Your task to perform on an android device: toggle improve location accuracy Image 0: 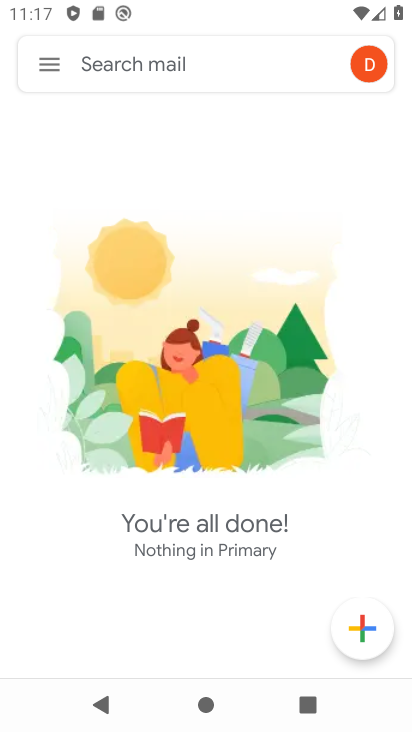
Step 0: press home button
Your task to perform on an android device: toggle improve location accuracy Image 1: 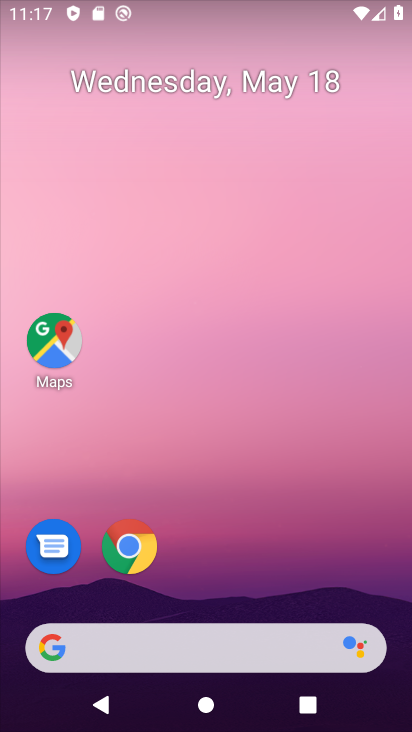
Step 1: drag from (386, 504) to (376, 300)
Your task to perform on an android device: toggle improve location accuracy Image 2: 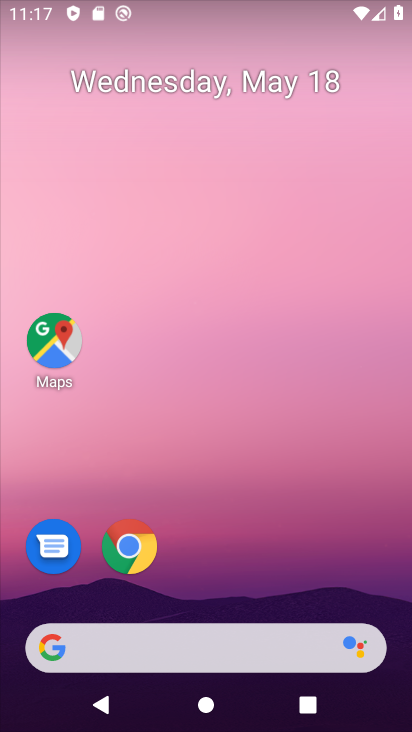
Step 2: drag from (397, 700) to (408, 231)
Your task to perform on an android device: toggle improve location accuracy Image 3: 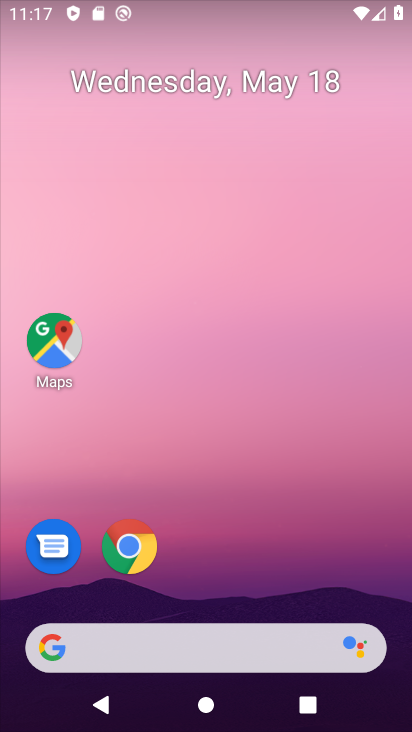
Step 3: drag from (398, 638) to (408, 183)
Your task to perform on an android device: toggle improve location accuracy Image 4: 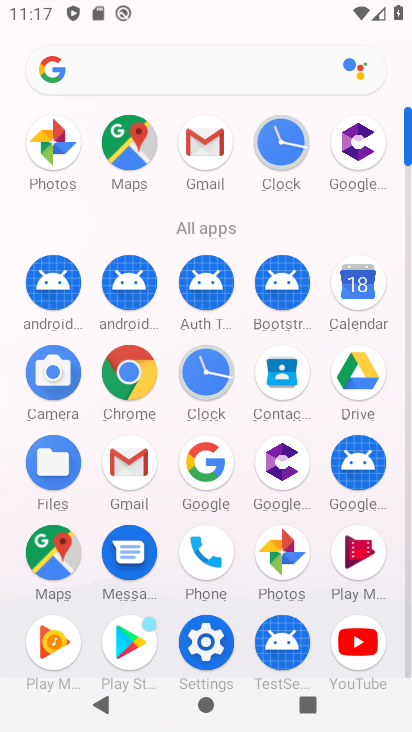
Step 4: click (208, 643)
Your task to perform on an android device: toggle improve location accuracy Image 5: 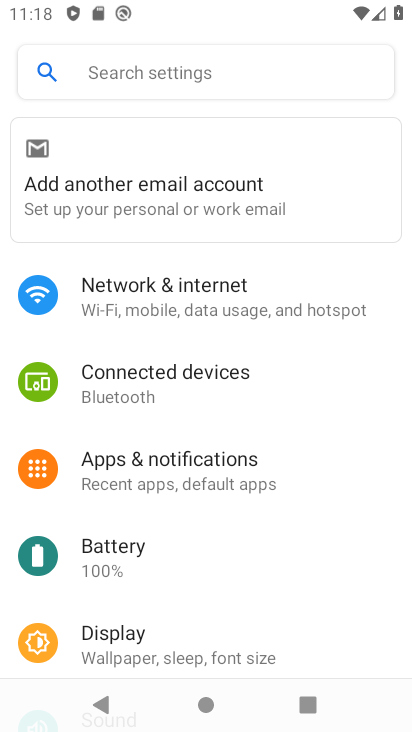
Step 5: drag from (349, 393) to (354, 269)
Your task to perform on an android device: toggle improve location accuracy Image 6: 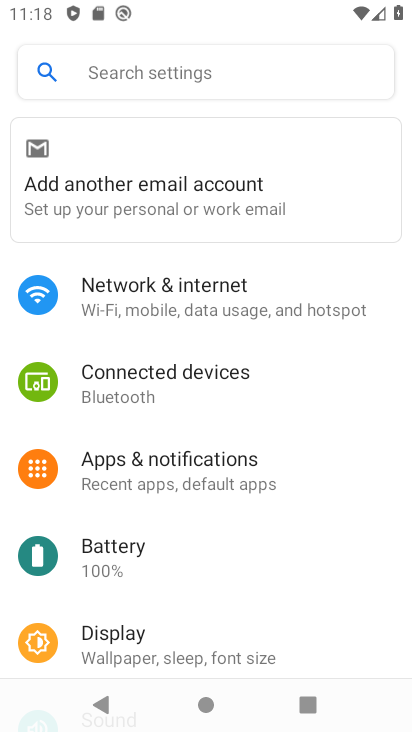
Step 6: drag from (345, 649) to (353, 326)
Your task to perform on an android device: toggle improve location accuracy Image 7: 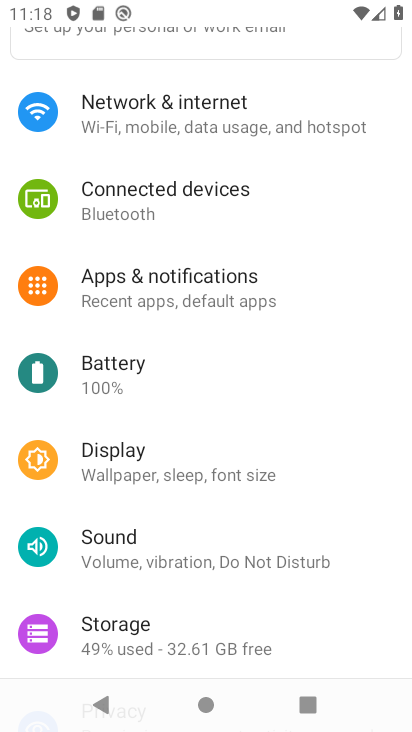
Step 7: drag from (347, 640) to (383, 252)
Your task to perform on an android device: toggle improve location accuracy Image 8: 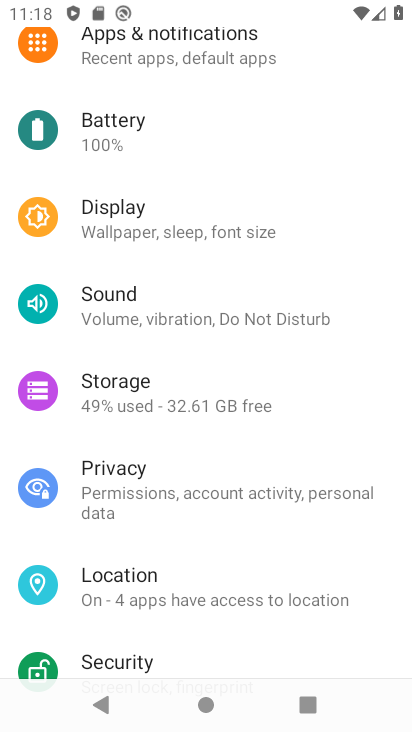
Step 8: drag from (335, 640) to (369, 284)
Your task to perform on an android device: toggle improve location accuracy Image 9: 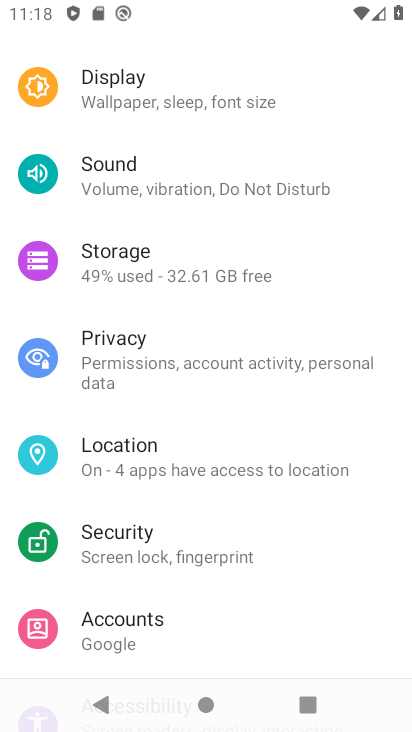
Step 9: drag from (333, 591) to (339, 426)
Your task to perform on an android device: toggle improve location accuracy Image 10: 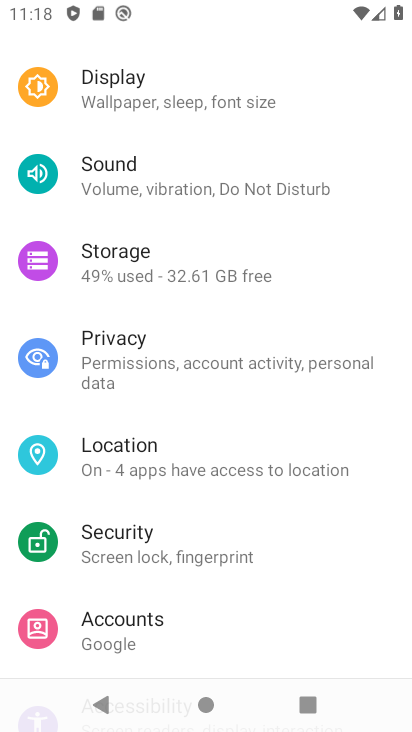
Step 10: drag from (329, 651) to (361, 333)
Your task to perform on an android device: toggle improve location accuracy Image 11: 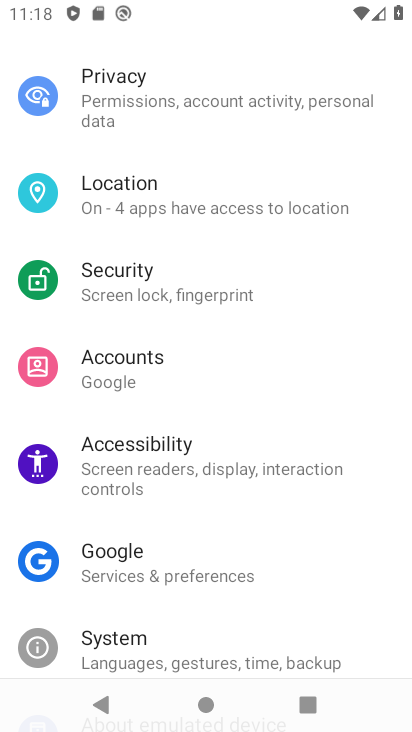
Step 11: click (113, 190)
Your task to perform on an android device: toggle improve location accuracy Image 12: 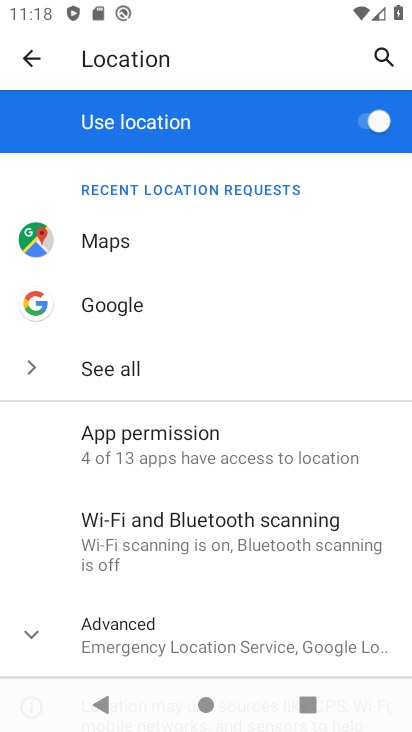
Step 12: drag from (280, 606) to (300, 389)
Your task to perform on an android device: toggle improve location accuracy Image 13: 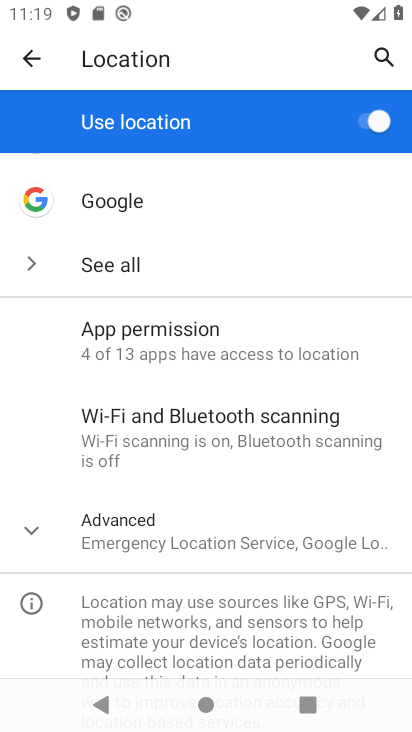
Step 13: drag from (202, 547) to (212, 329)
Your task to perform on an android device: toggle improve location accuracy Image 14: 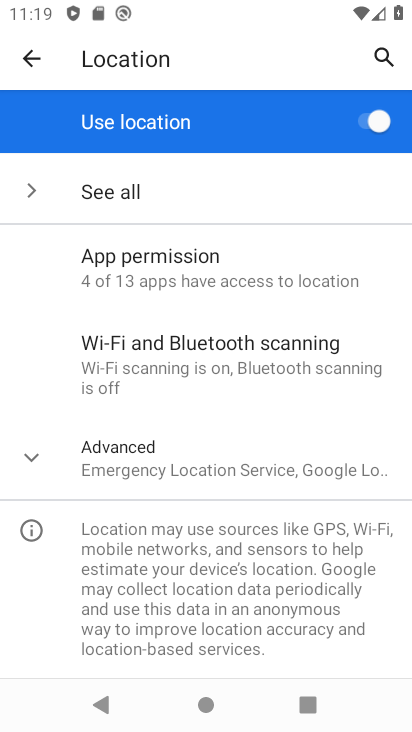
Step 14: click (39, 455)
Your task to perform on an android device: toggle improve location accuracy Image 15: 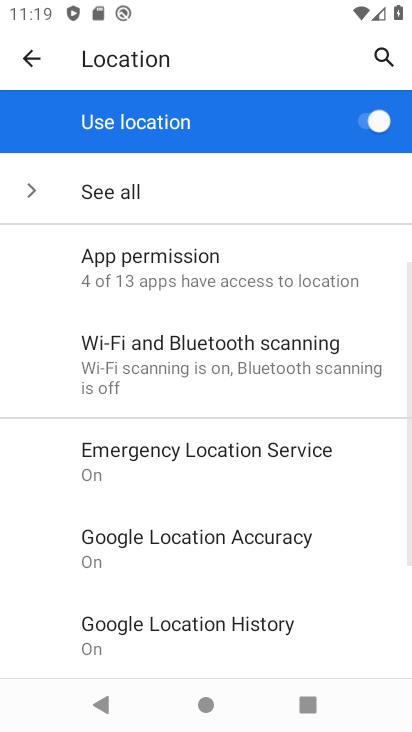
Step 15: drag from (341, 609) to (356, 248)
Your task to perform on an android device: toggle improve location accuracy Image 16: 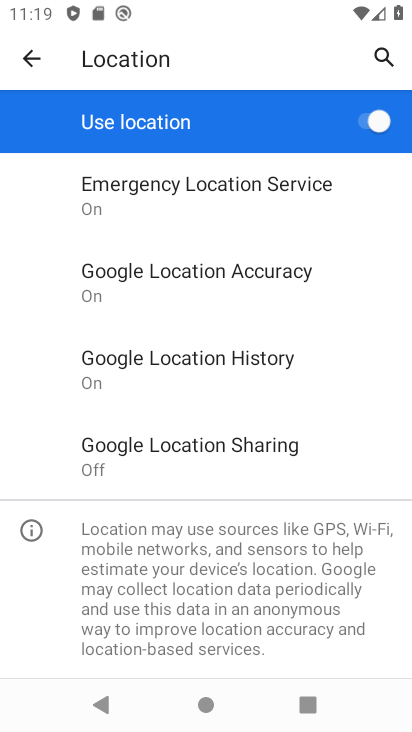
Step 16: drag from (355, 604) to (356, 406)
Your task to perform on an android device: toggle improve location accuracy Image 17: 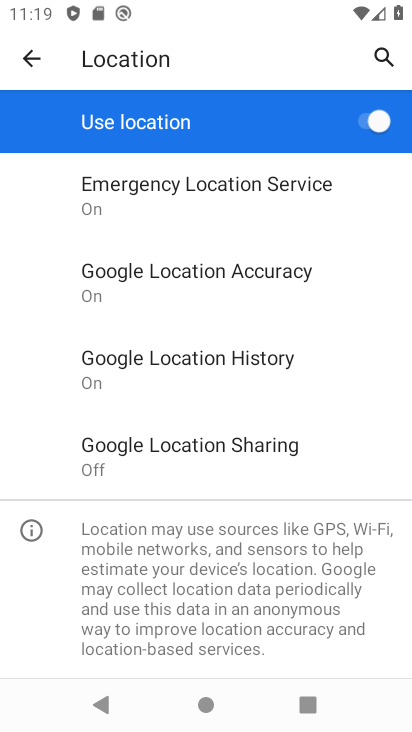
Step 17: click (158, 262)
Your task to perform on an android device: toggle improve location accuracy Image 18: 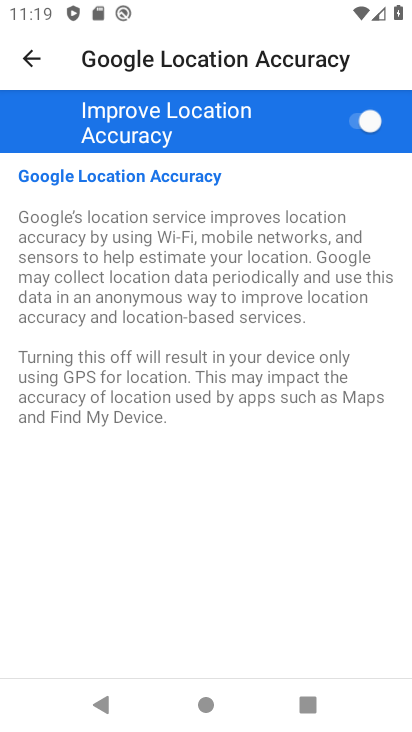
Step 18: click (348, 122)
Your task to perform on an android device: toggle improve location accuracy Image 19: 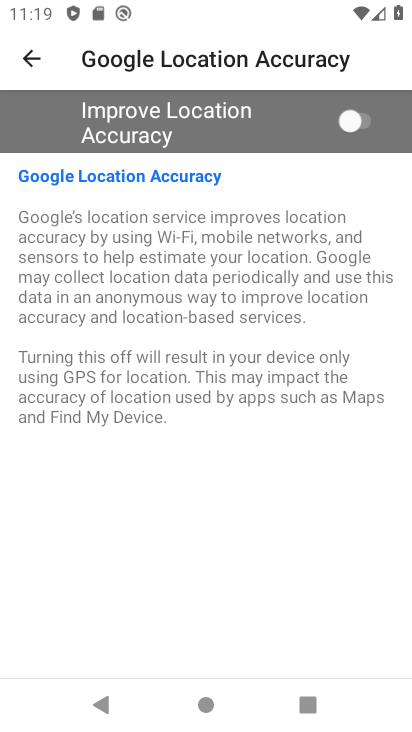
Step 19: task complete